Your task to perform on an android device: Open maps Image 0: 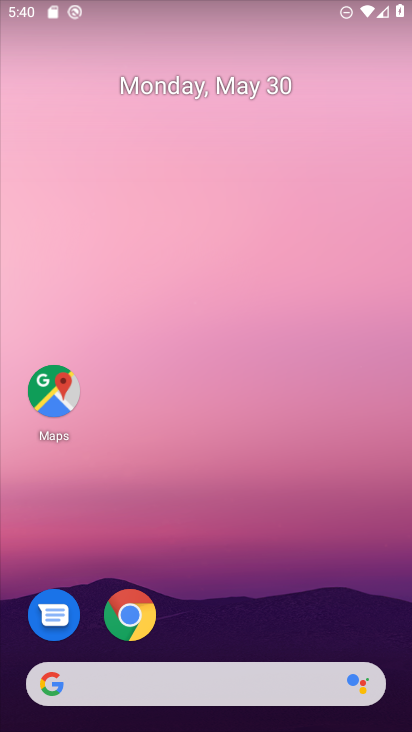
Step 0: click (33, 418)
Your task to perform on an android device: Open maps Image 1: 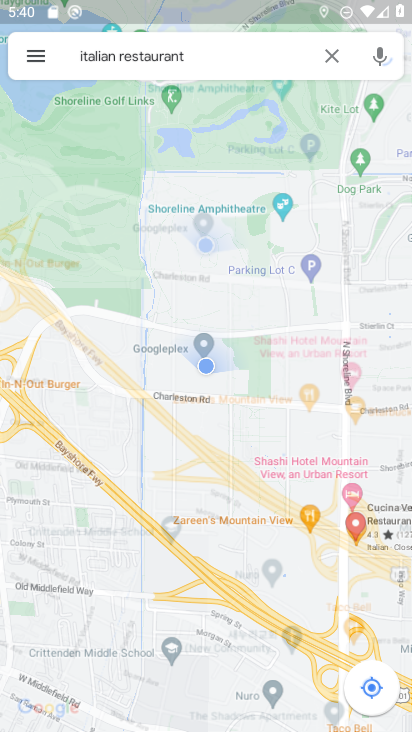
Step 1: task complete